Your task to perform on an android device: clear history in the chrome app Image 0: 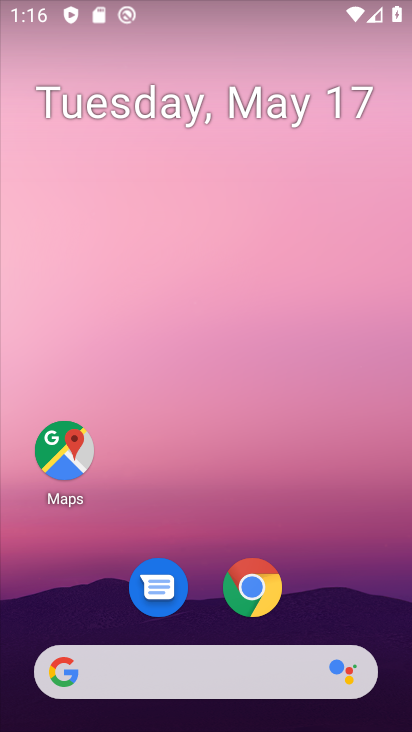
Step 0: drag from (368, 577) to (360, 235)
Your task to perform on an android device: clear history in the chrome app Image 1: 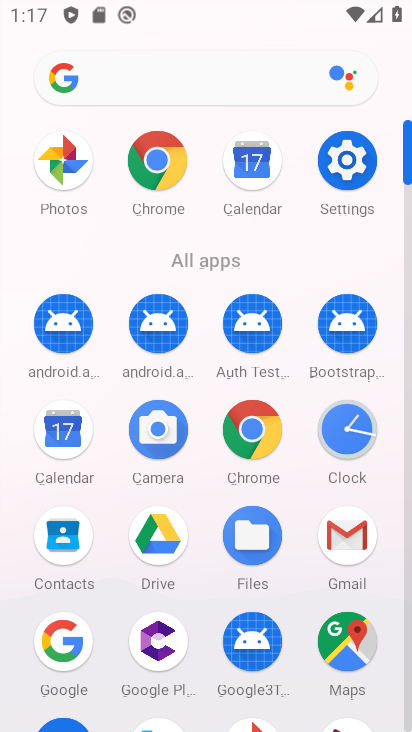
Step 1: click (245, 421)
Your task to perform on an android device: clear history in the chrome app Image 2: 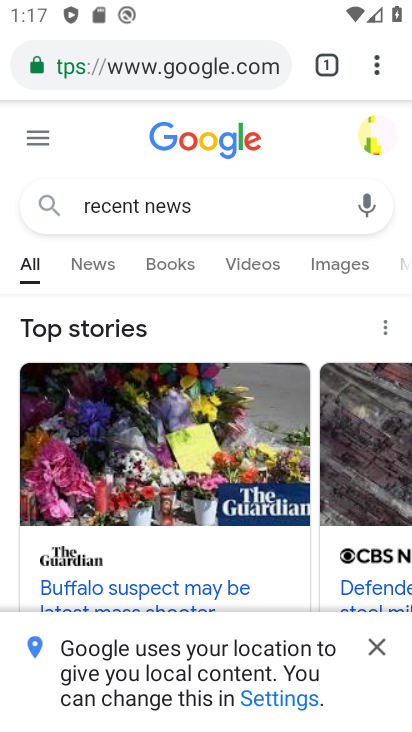
Step 2: drag from (376, 85) to (201, 284)
Your task to perform on an android device: clear history in the chrome app Image 3: 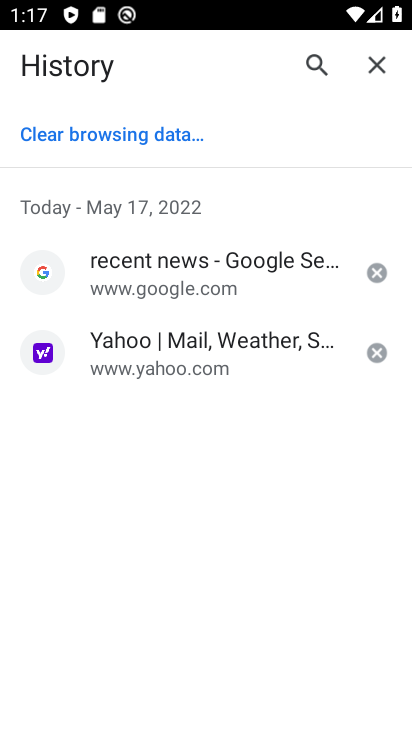
Step 3: click (129, 144)
Your task to perform on an android device: clear history in the chrome app Image 4: 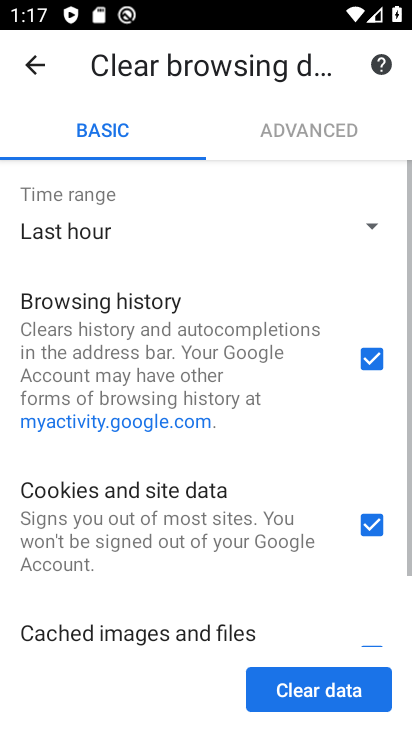
Step 4: click (352, 698)
Your task to perform on an android device: clear history in the chrome app Image 5: 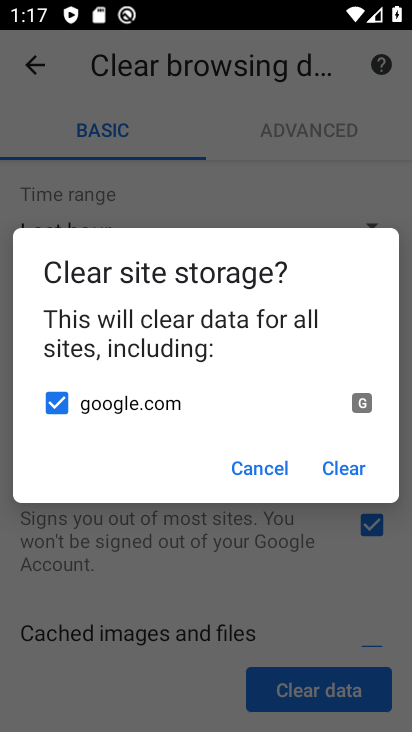
Step 5: click (363, 467)
Your task to perform on an android device: clear history in the chrome app Image 6: 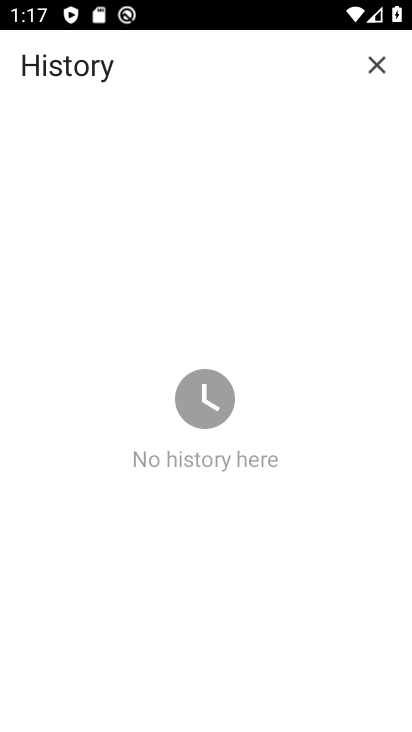
Step 6: task complete